Your task to perform on an android device: turn on airplane mode Image 0: 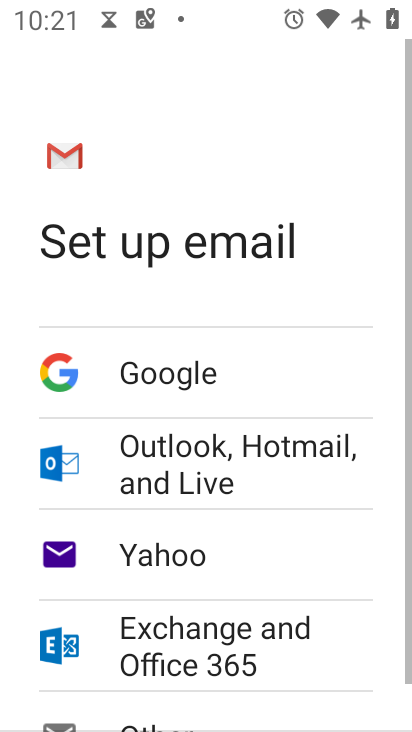
Step 0: press home button
Your task to perform on an android device: turn on airplane mode Image 1: 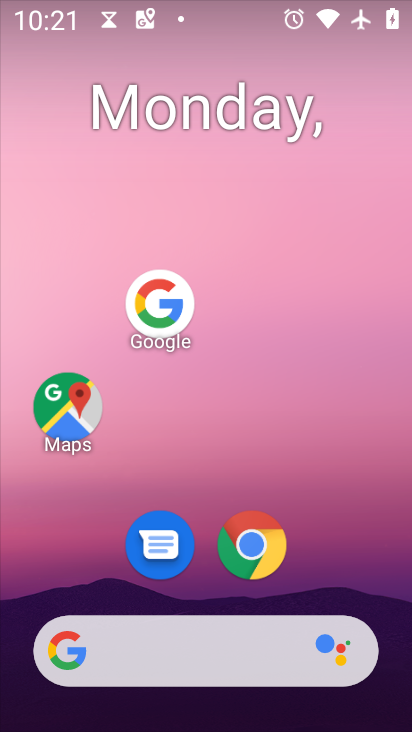
Step 1: drag from (152, 666) to (254, 197)
Your task to perform on an android device: turn on airplane mode Image 2: 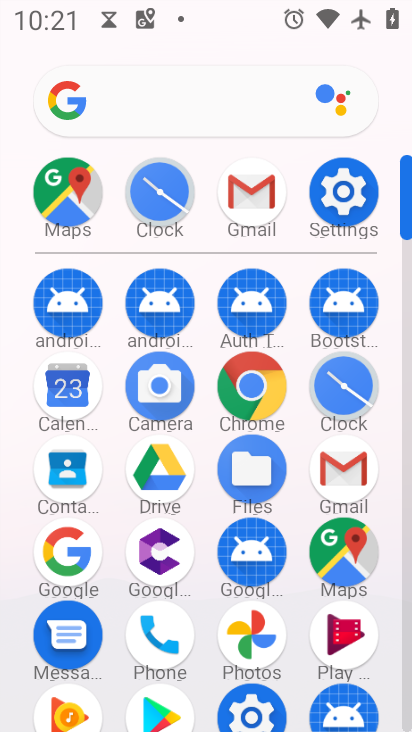
Step 2: click (352, 193)
Your task to perform on an android device: turn on airplane mode Image 3: 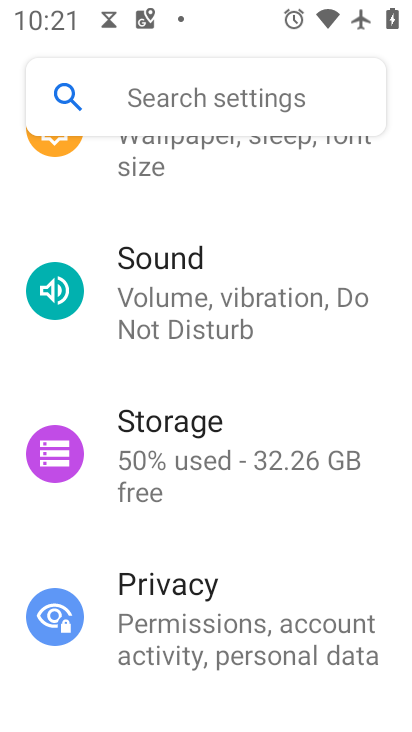
Step 3: drag from (314, 226) to (261, 664)
Your task to perform on an android device: turn on airplane mode Image 4: 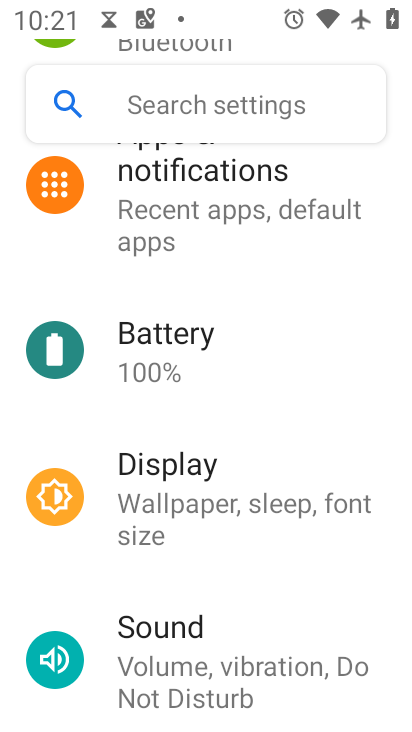
Step 4: drag from (328, 287) to (291, 641)
Your task to perform on an android device: turn on airplane mode Image 5: 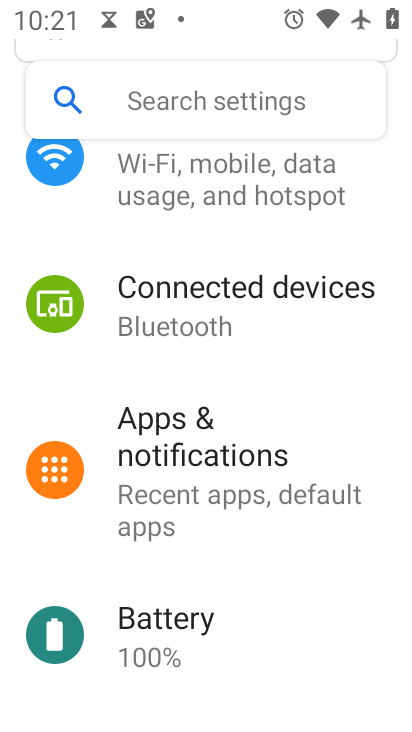
Step 5: drag from (327, 247) to (303, 626)
Your task to perform on an android device: turn on airplane mode Image 6: 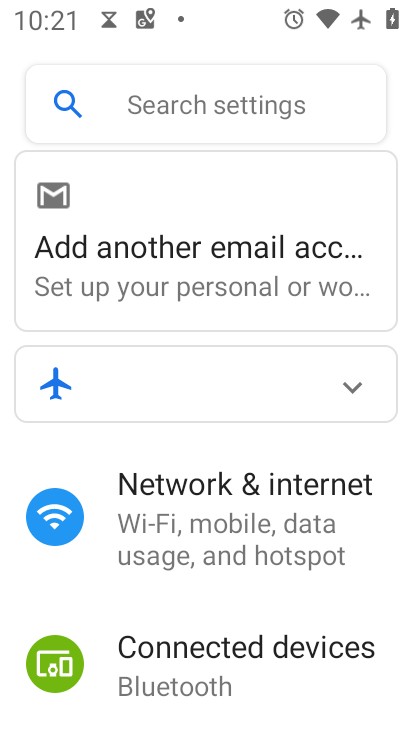
Step 6: click (257, 479)
Your task to perform on an android device: turn on airplane mode Image 7: 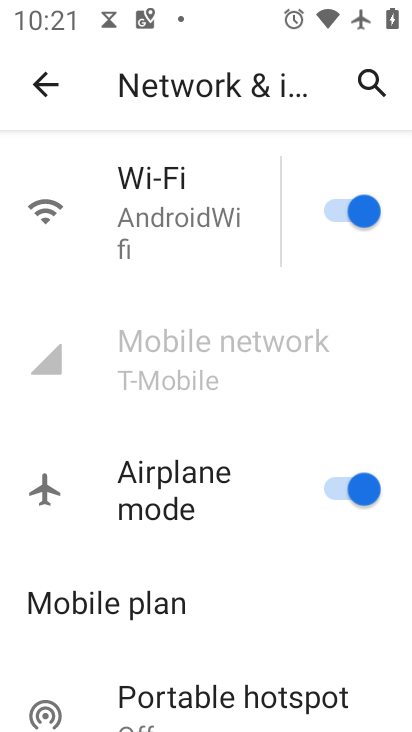
Step 7: task complete